Your task to perform on an android device: check battery use Image 0: 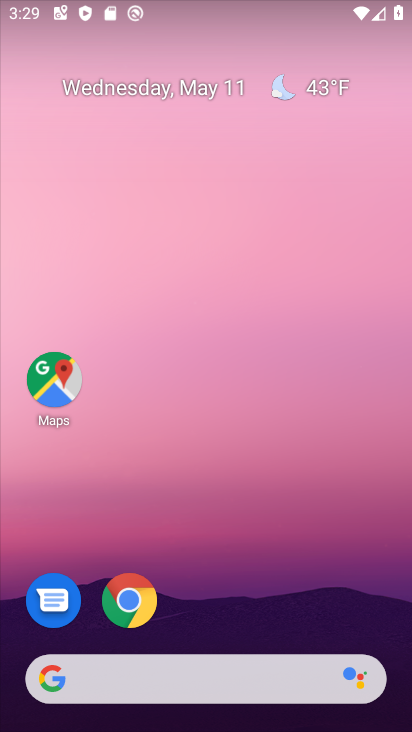
Step 0: drag from (349, 630) to (389, 15)
Your task to perform on an android device: check battery use Image 1: 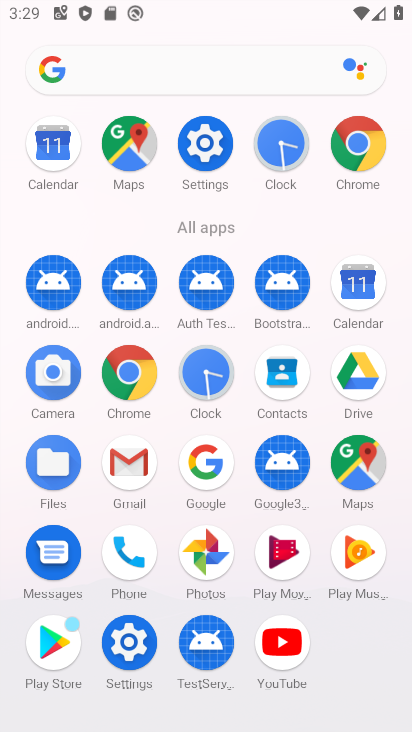
Step 1: click (212, 145)
Your task to perform on an android device: check battery use Image 2: 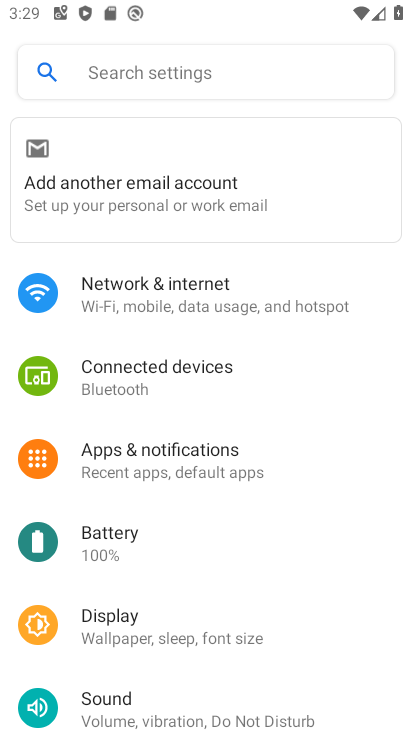
Step 2: click (100, 546)
Your task to perform on an android device: check battery use Image 3: 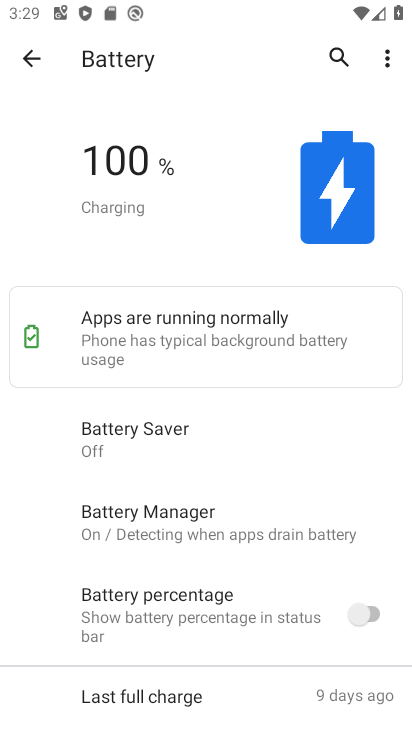
Step 3: click (389, 61)
Your task to perform on an android device: check battery use Image 4: 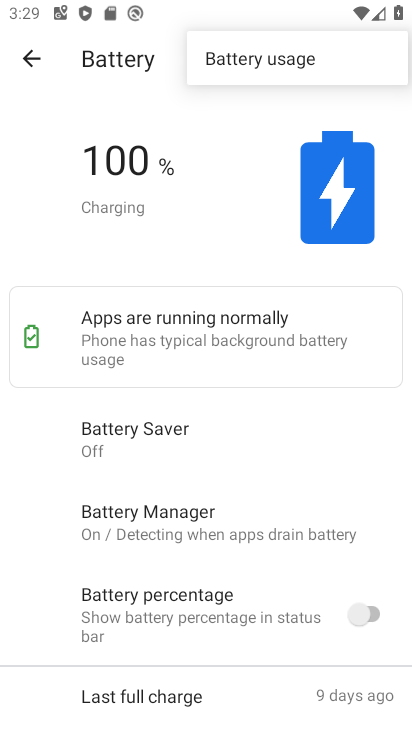
Step 4: click (233, 64)
Your task to perform on an android device: check battery use Image 5: 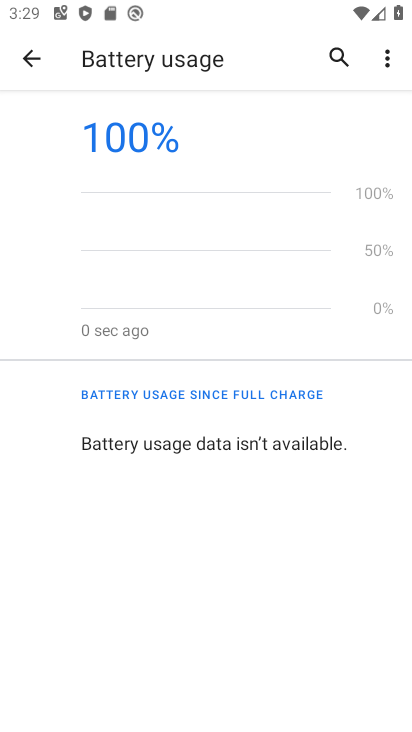
Step 5: task complete